Your task to perform on an android device: Open the stopwatch Image 0: 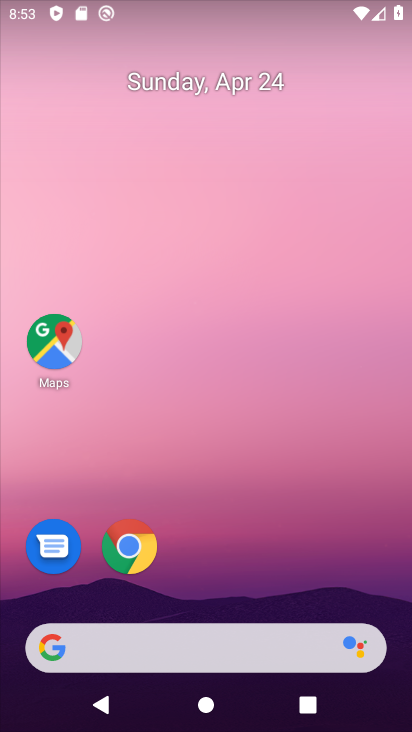
Step 0: drag from (272, 430) to (362, 174)
Your task to perform on an android device: Open the stopwatch Image 1: 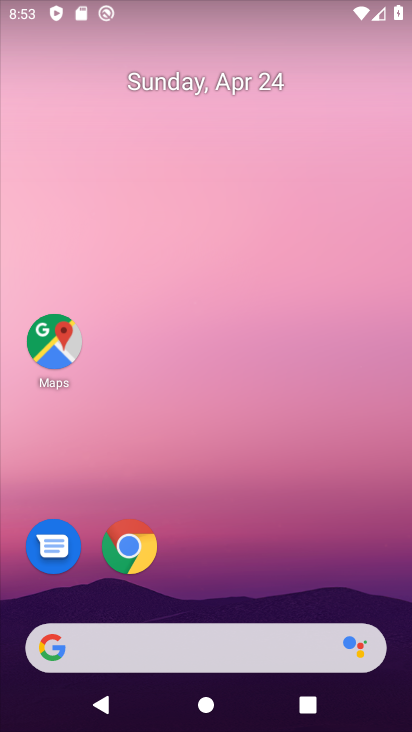
Step 1: drag from (183, 615) to (272, 148)
Your task to perform on an android device: Open the stopwatch Image 2: 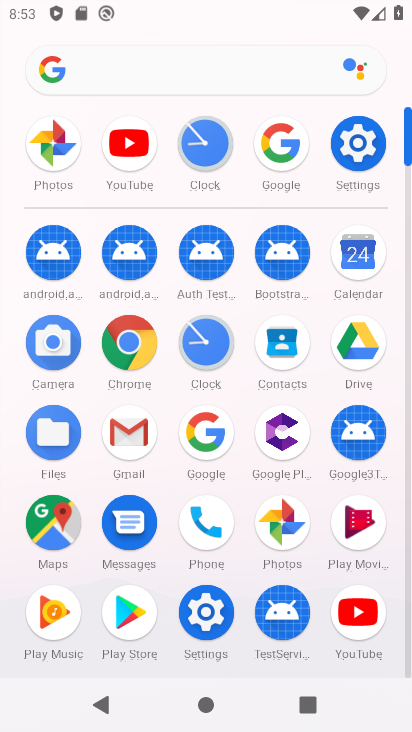
Step 2: click (198, 360)
Your task to perform on an android device: Open the stopwatch Image 3: 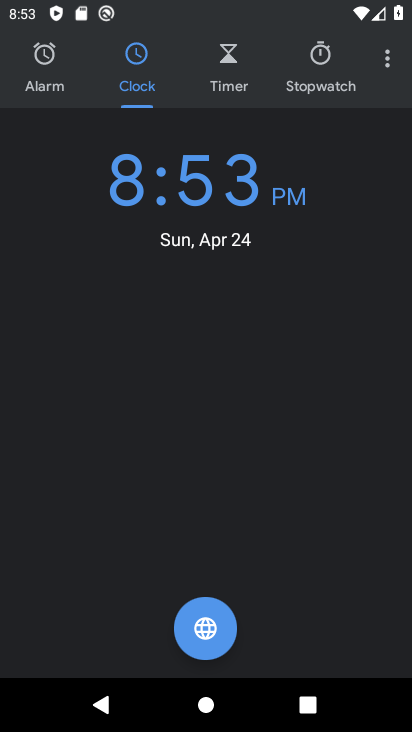
Step 3: click (288, 67)
Your task to perform on an android device: Open the stopwatch Image 4: 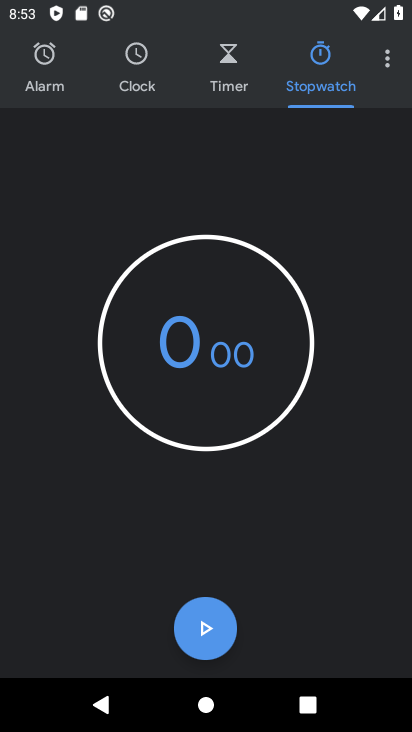
Step 4: task complete